Your task to perform on an android device: Go to Reddit.com Image 0: 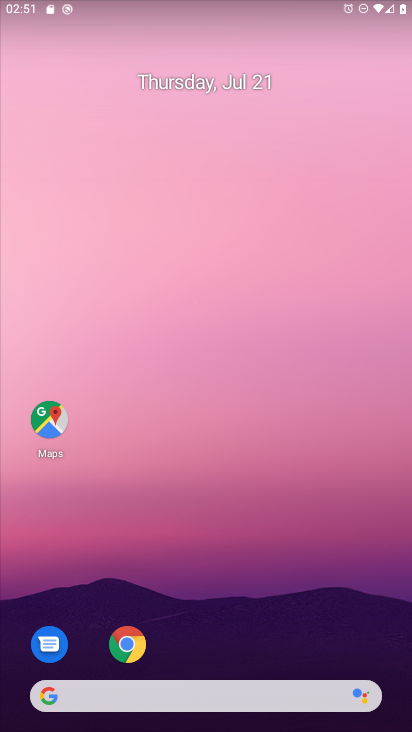
Step 0: drag from (189, 671) to (279, 282)
Your task to perform on an android device: Go to Reddit.com Image 1: 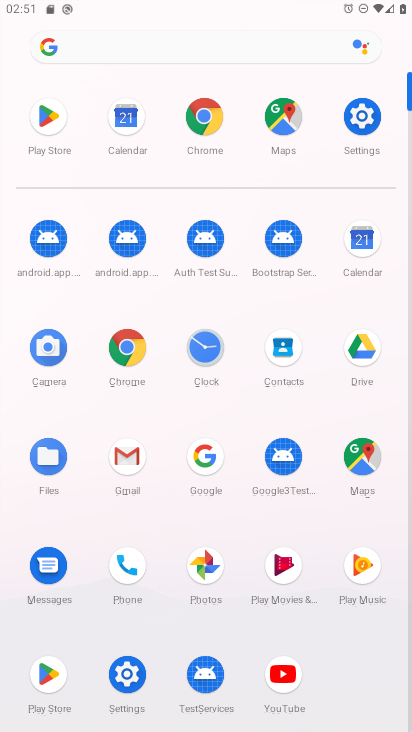
Step 1: click (205, 453)
Your task to perform on an android device: Go to Reddit.com Image 2: 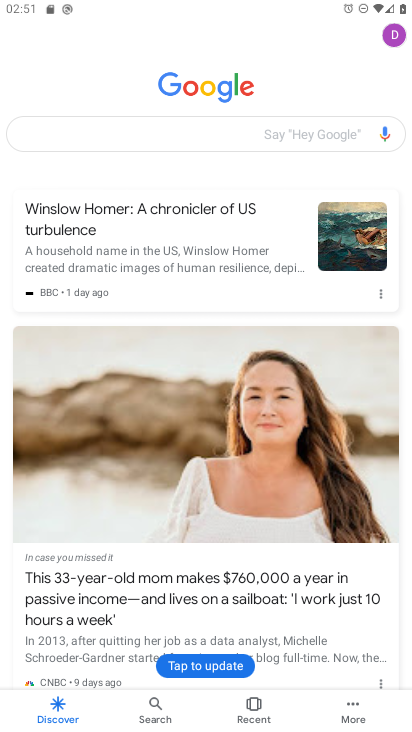
Step 2: click (82, 134)
Your task to perform on an android device: Go to Reddit.com Image 3: 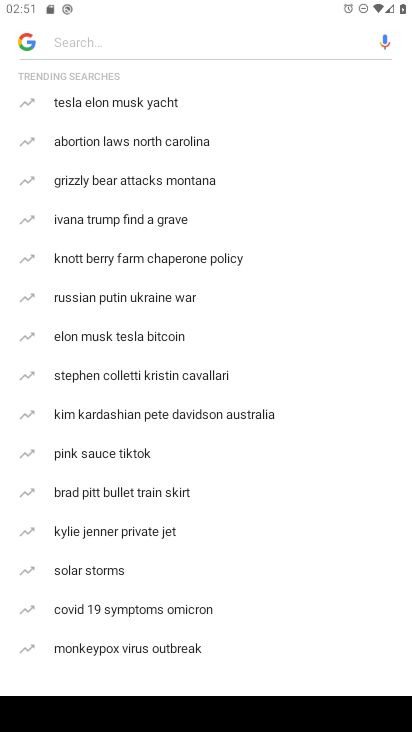
Step 3: drag from (117, 627) to (109, 268)
Your task to perform on an android device: Go to Reddit.com Image 4: 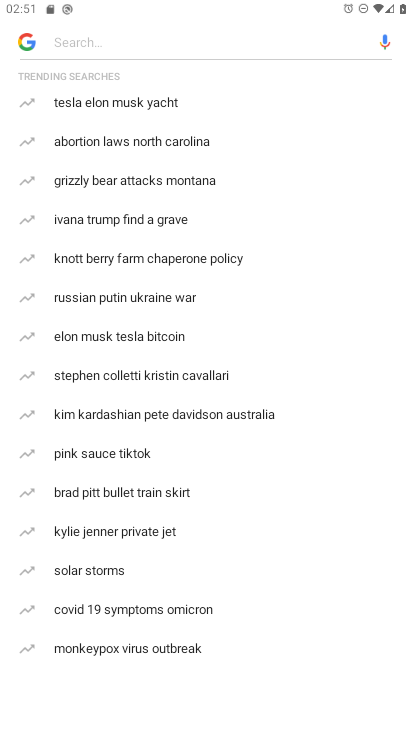
Step 4: click (71, 34)
Your task to perform on an android device: Go to Reddit.com Image 5: 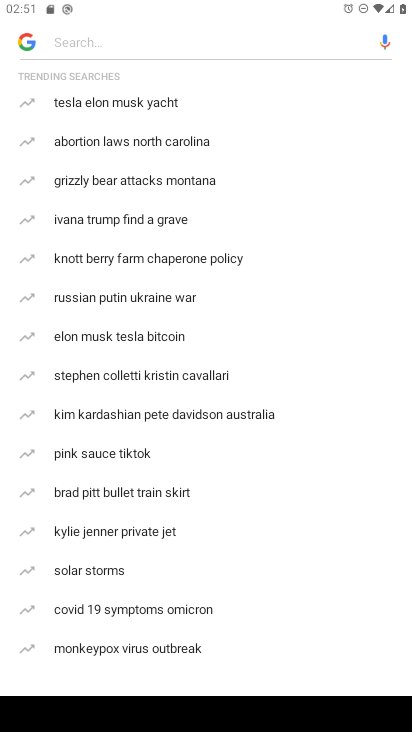
Step 5: click (70, 46)
Your task to perform on an android device: Go to Reddit.com Image 6: 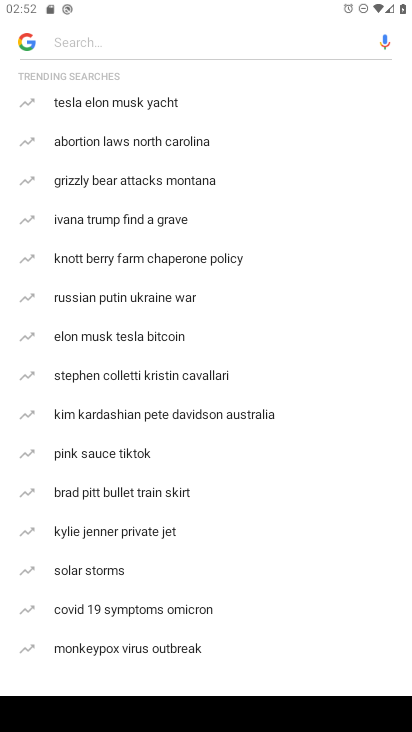
Step 6: click (65, 41)
Your task to perform on an android device: Go to Reddit.com Image 7: 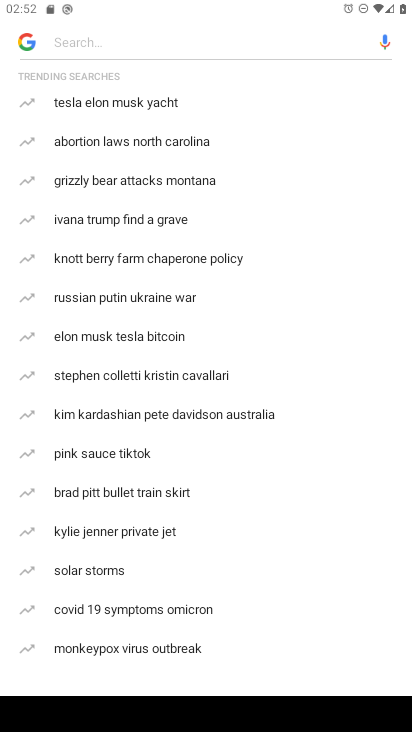
Step 7: click (65, 41)
Your task to perform on an android device: Go to Reddit.com Image 8: 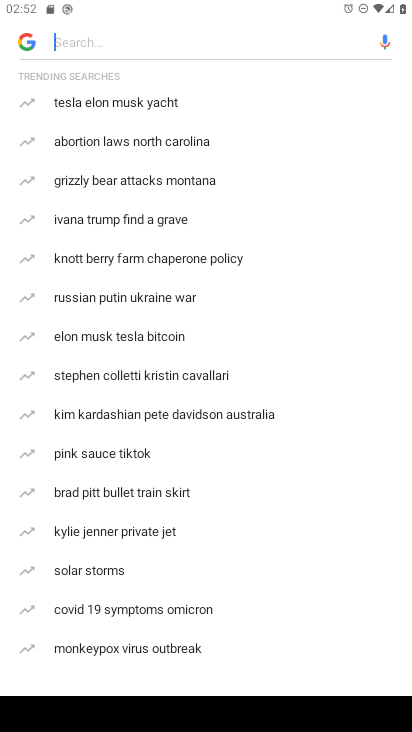
Step 8: type "Reddit.com"
Your task to perform on an android device: Go to Reddit.com Image 9: 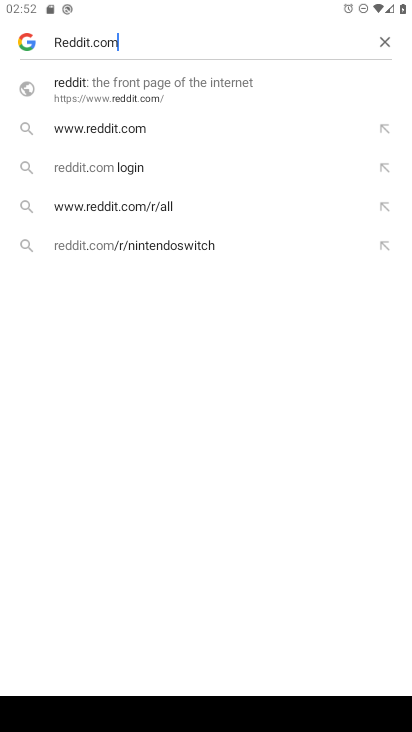
Step 9: click (96, 128)
Your task to perform on an android device: Go to Reddit.com Image 10: 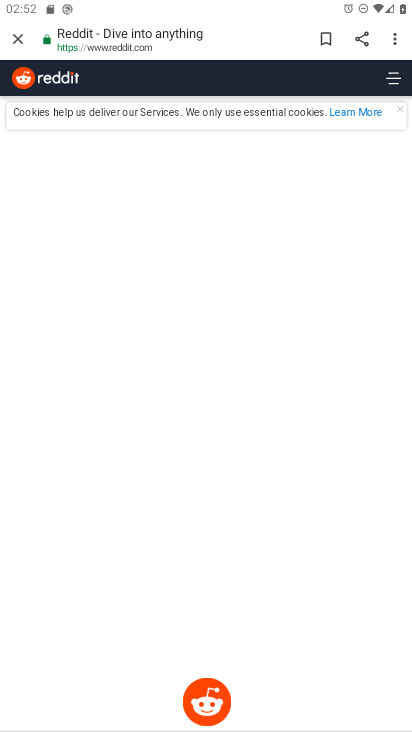
Step 10: task complete